Your task to perform on an android device: change text size in settings app Image 0: 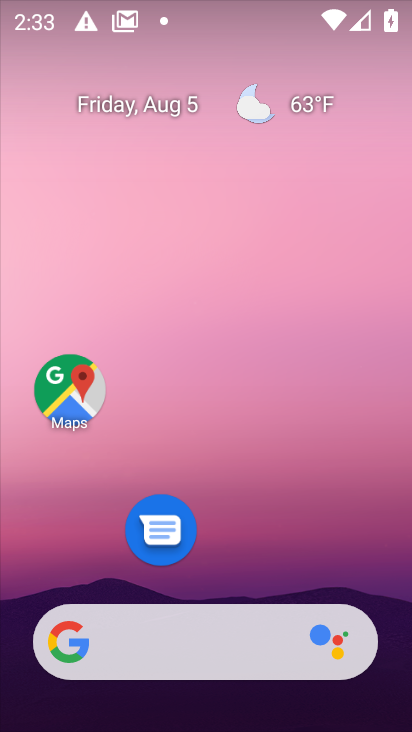
Step 0: drag from (218, 714) to (242, 165)
Your task to perform on an android device: change text size in settings app Image 1: 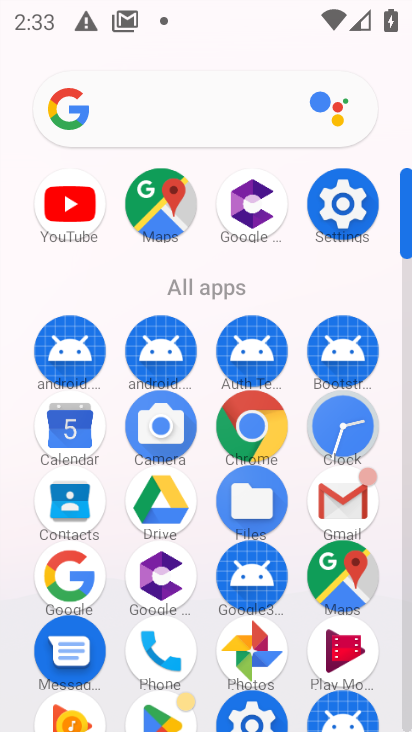
Step 1: click (355, 208)
Your task to perform on an android device: change text size in settings app Image 2: 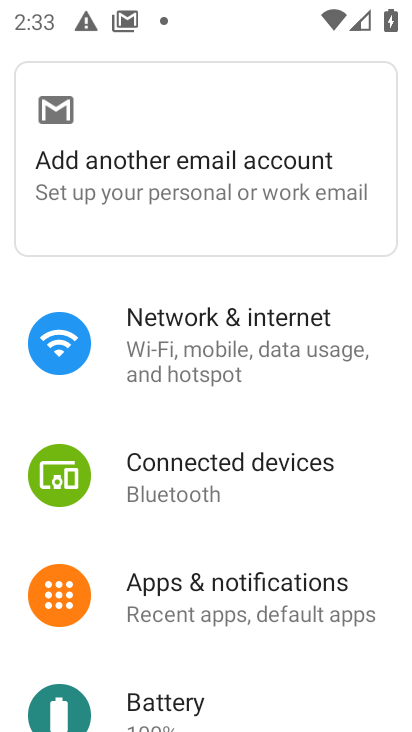
Step 2: drag from (303, 629) to (328, 69)
Your task to perform on an android device: change text size in settings app Image 3: 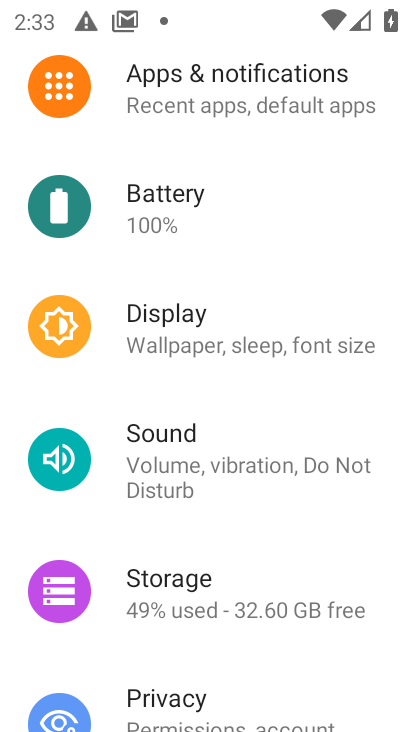
Step 3: drag from (271, 492) to (302, 15)
Your task to perform on an android device: change text size in settings app Image 4: 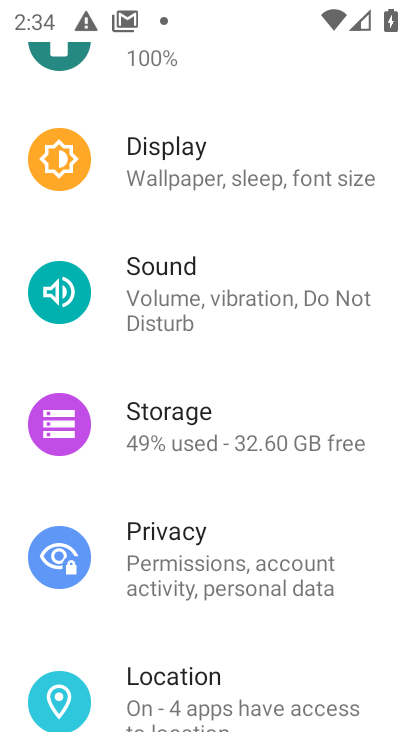
Step 4: drag from (324, 356) to (294, 722)
Your task to perform on an android device: change text size in settings app Image 5: 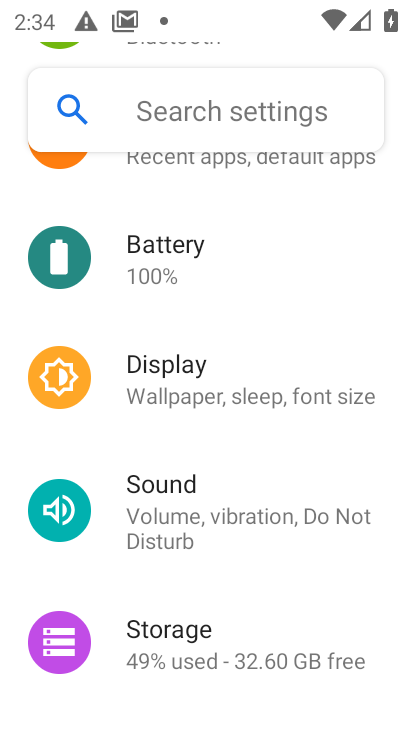
Step 5: drag from (289, 621) to (410, 347)
Your task to perform on an android device: change text size in settings app Image 6: 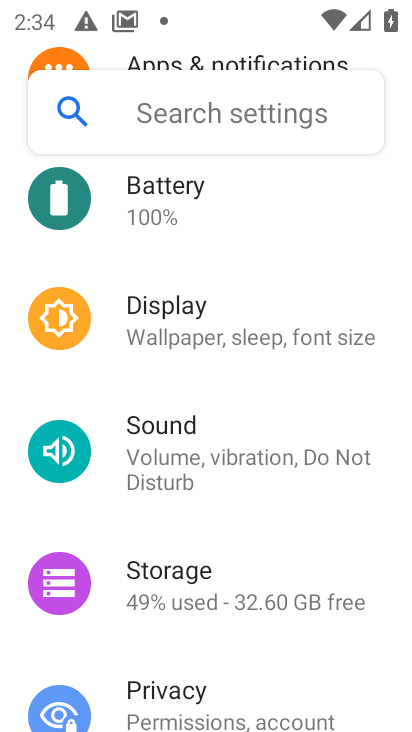
Step 6: click (330, 328)
Your task to perform on an android device: change text size in settings app Image 7: 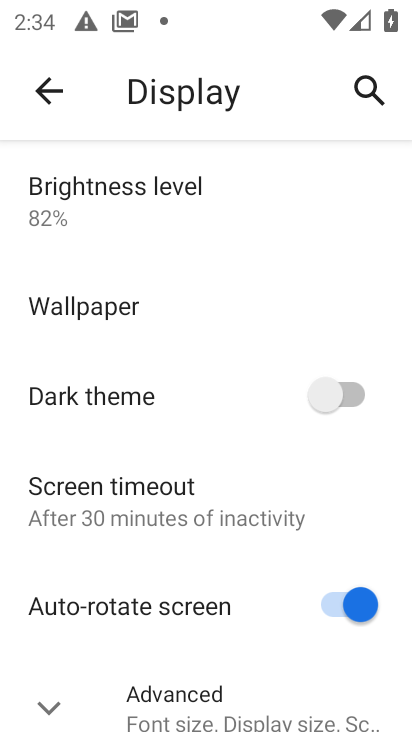
Step 7: click (222, 699)
Your task to perform on an android device: change text size in settings app Image 8: 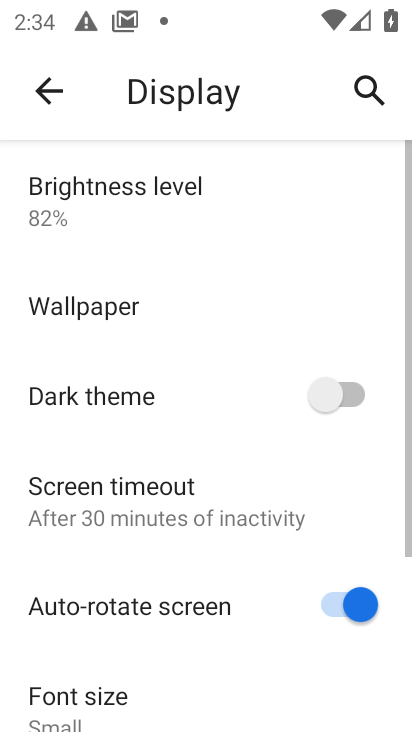
Step 8: drag from (226, 691) to (228, 87)
Your task to perform on an android device: change text size in settings app Image 9: 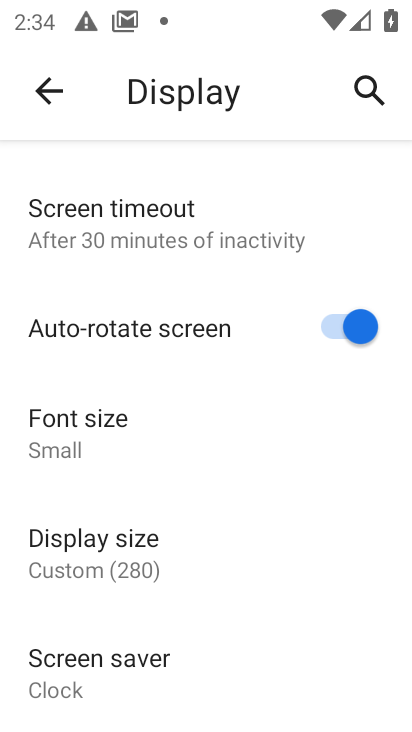
Step 9: click (116, 431)
Your task to perform on an android device: change text size in settings app Image 10: 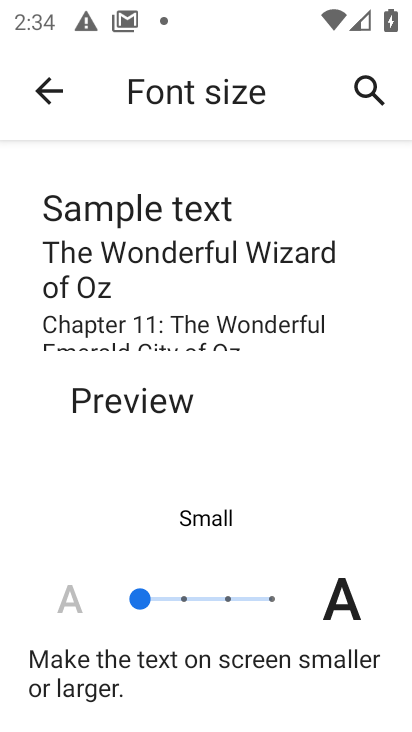
Step 10: click (180, 600)
Your task to perform on an android device: change text size in settings app Image 11: 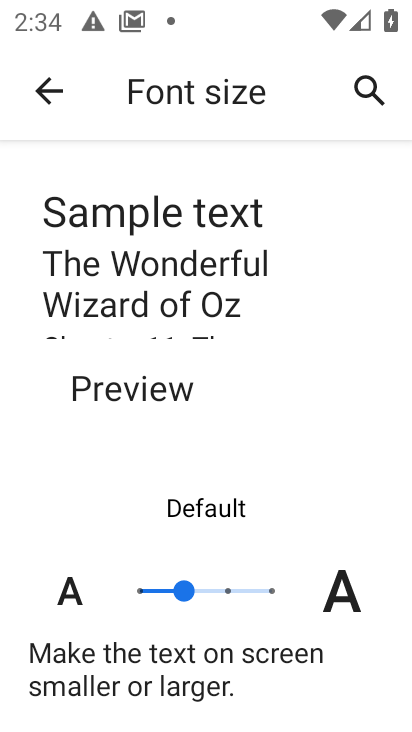
Step 11: task complete